Your task to perform on an android device: turn on priority inbox in the gmail app Image 0: 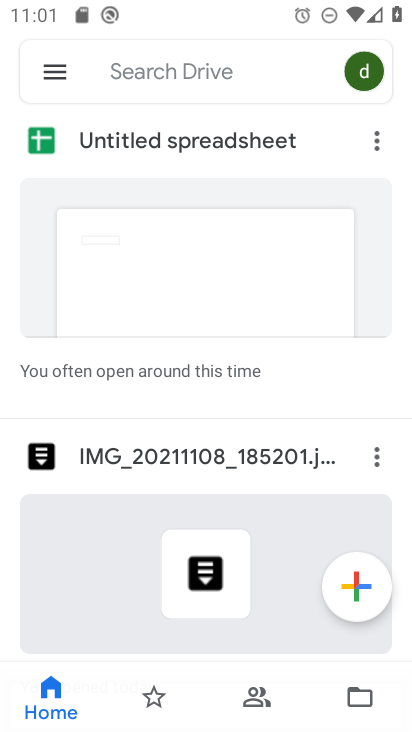
Step 0: press home button
Your task to perform on an android device: turn on priority inbox in the gmail app Image 1: 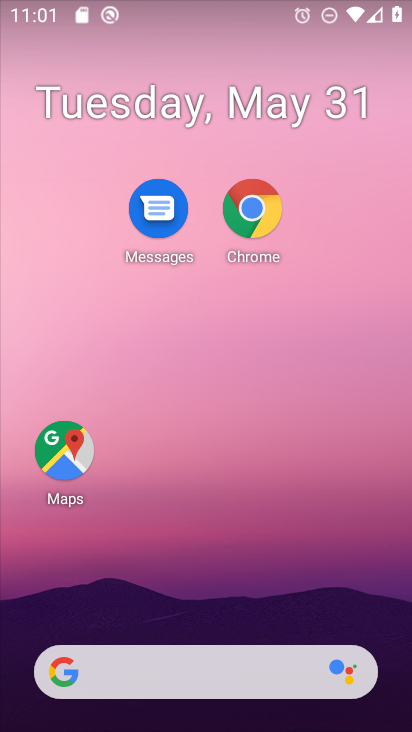
Step 1: drag from (238, 589) to (241, 127)
Your task to perform on an android device: turn on priority inbox in the gmail app Image 2: 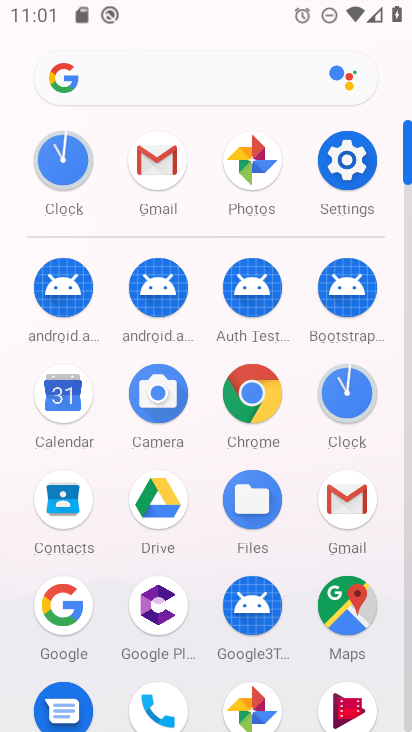
Step 2: click (349, 494)
Your task to perform on an android device: turn on priority inbox in the gmail app Image 3: 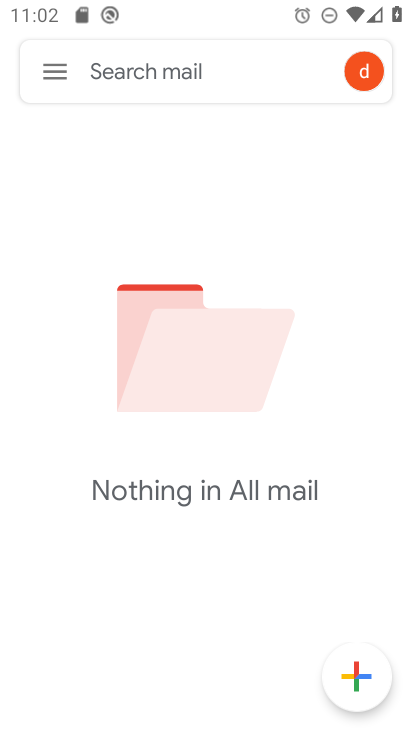
Step 3: click (41, 77)
Your task to perform on an android device: turn on priority inbox in the gmail app Image 4: 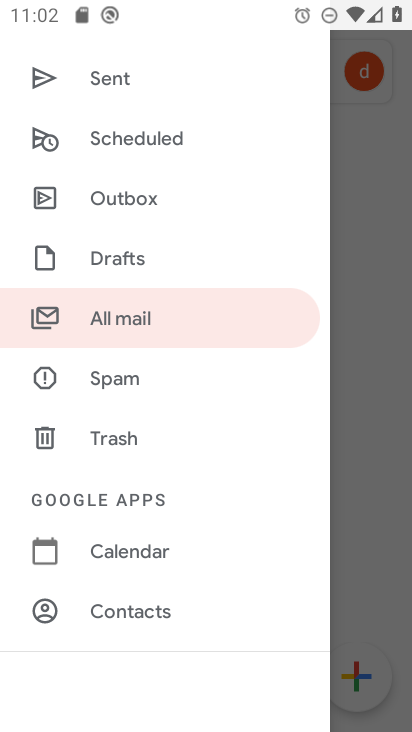
Step 4: drag from (142, 612) to (135, 151)
Your task to perform on an android device: turn on priority inbox in the gmail app Image 5: 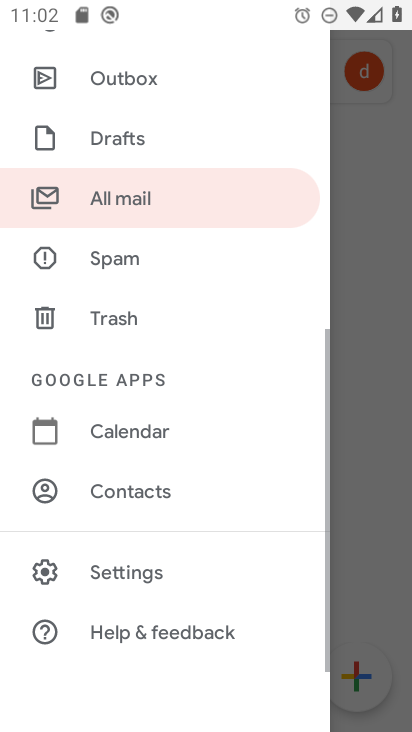
Step 5: click (127, 563)
Your task to perform on an android device: turn on priority inbox in the gmail app Image 6: 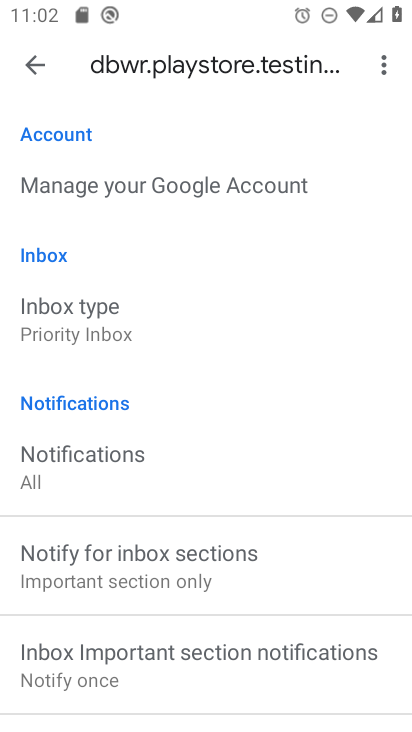
Step 6: click (121, 313)
Your task to perform on an android device: turn on priority inbox in the gmail app Image 7: 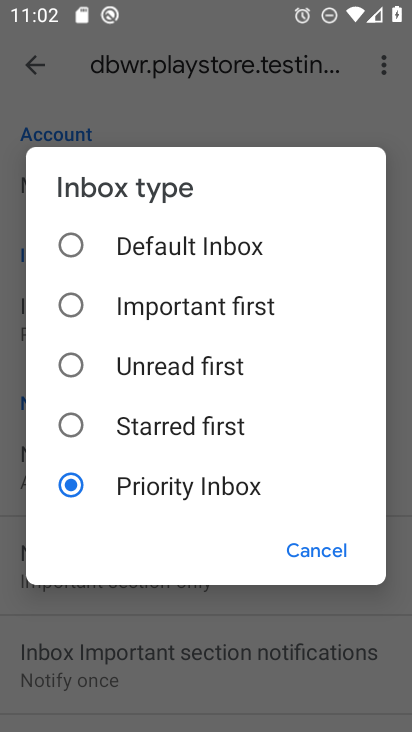
Step 7: click (107, 482)
Your task to perform on an android device: turn on priority inbox in the gmail app Image 8: 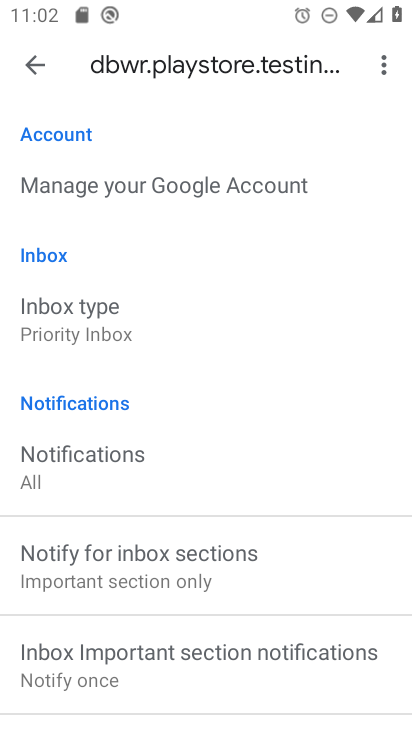
Step 8: task complete